Your task to perform on an android device: turn notification dots on Image 0: 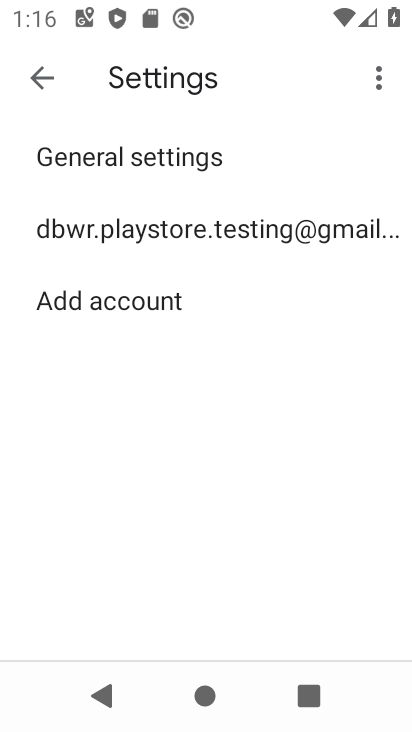
Step 0: press home button
Your task to perform on an android device: turn notification dots on Image 1: 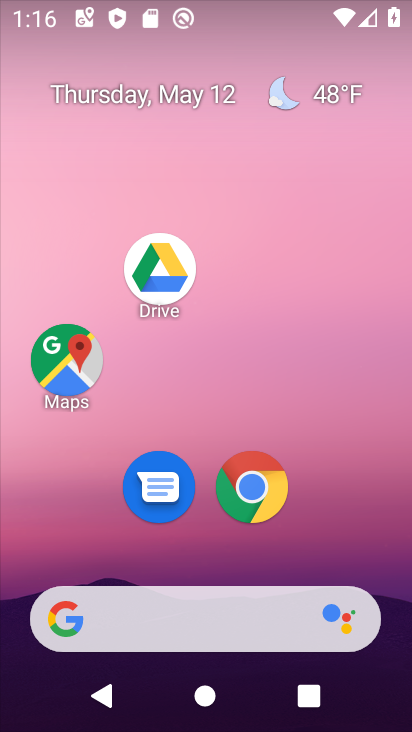
Step 1: drag from (177, 554) to (169, 27)
Your task to perform on an android device: turn notification dots on Image 2: 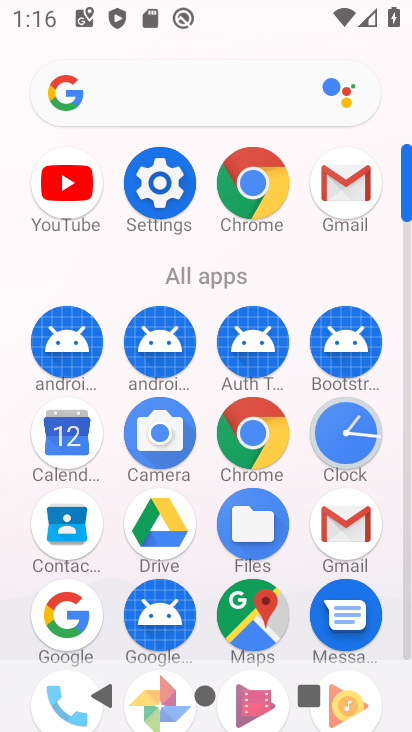
Step 2: click (147, 183)
Your task to perform on an android device: turn notification dots on Image 3: 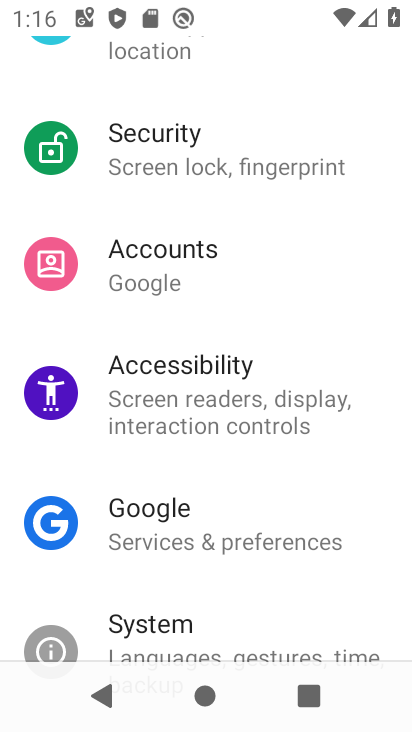
Step 3: drag from (225, 248) to (214, 614)
Your task to perform on an android device: turn notification dots on Image 4: 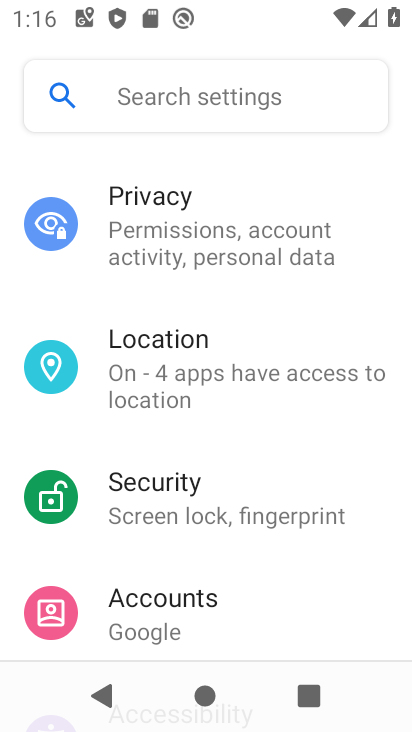
Step 4: drag from (198, 238) to (196, 721)
Your task to perform on an android device: turn notification dots on Image 5: 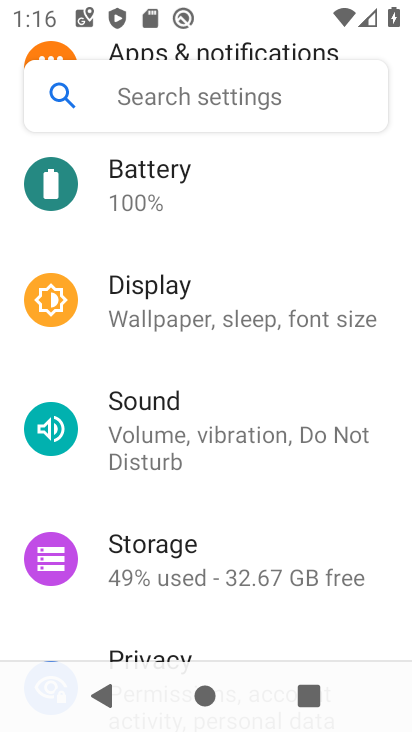
Step 5: drag from (197, 187) to (209, 453)
Your task to perform on an android device: turn notification dots on Image 6: 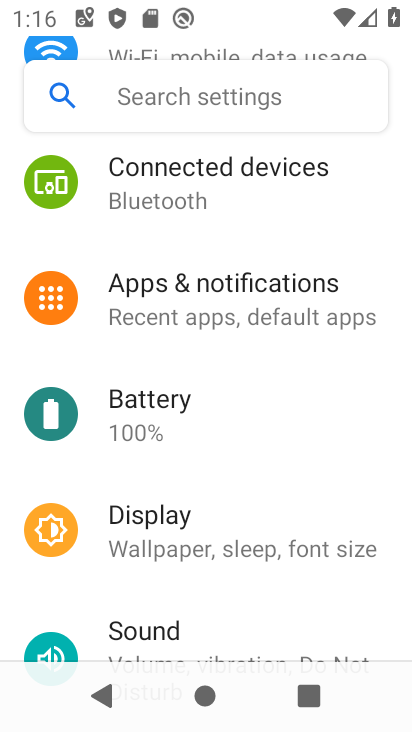
Step 6: click (187, 290)
Your task to perform on an android device: turn notification dots on Image 7: 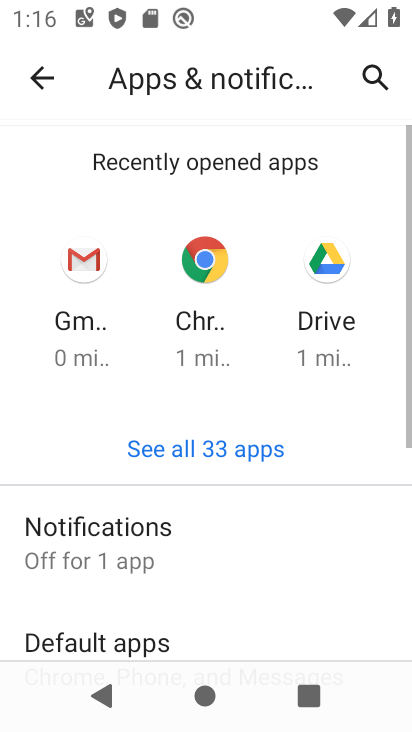
Step 7: click (187, 513)
Your task to perform on an android device: turn notification dots on Image 8: 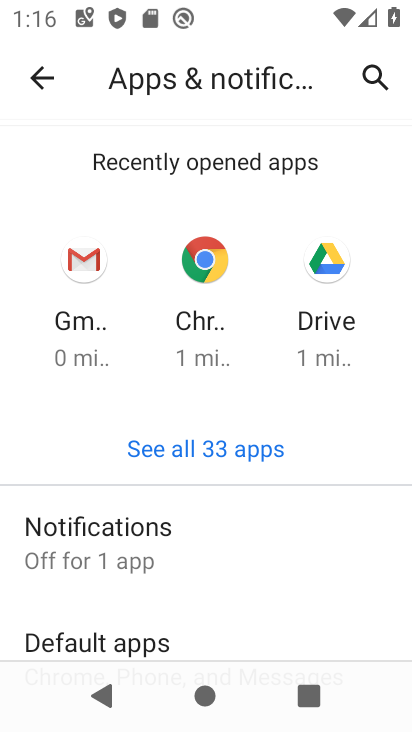
Step 8: drag from (187, 513) to (143, 106)
Your task to perform on an android device: turn notification dots on Image 9: 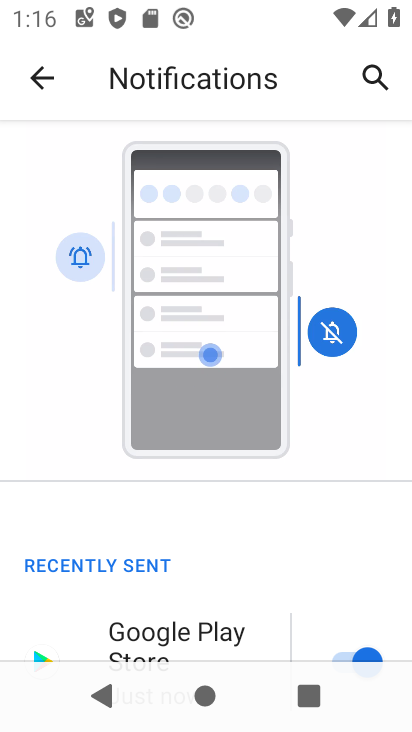
Step 9: drag from (155, 550) to (140, 60)
Your task to perform on an android device: turn notification dots on Image 10: 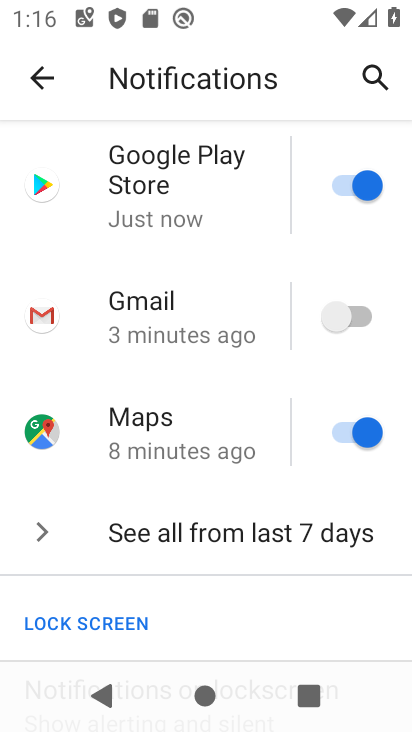
Step 10: drag from (207, 573) to (176, 114)
Your task to perform on an android device: turn notification dots on Image 11: 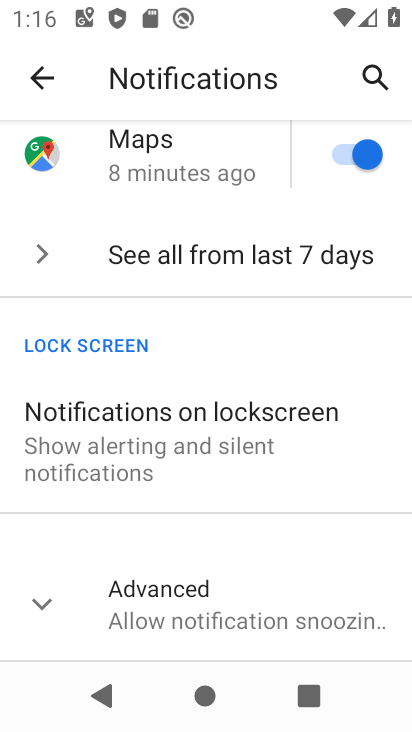
Step 11: click (225, 594)
Your task to perform on an android device: turn notification dots on Image 12: 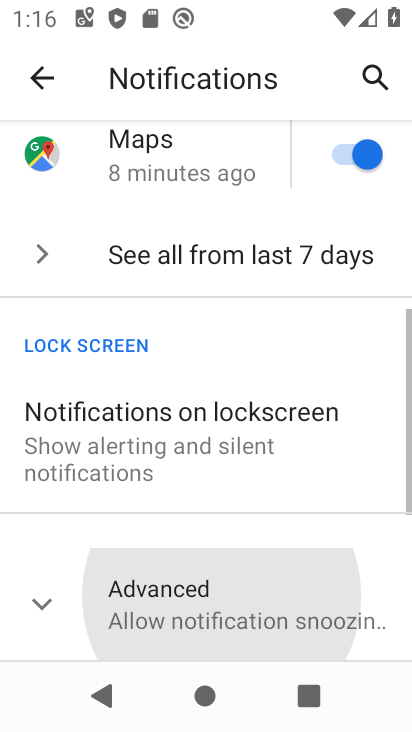
Step 12: task complete